Your task to perform on an android device: Show me popular games on the Play Store Image 0: 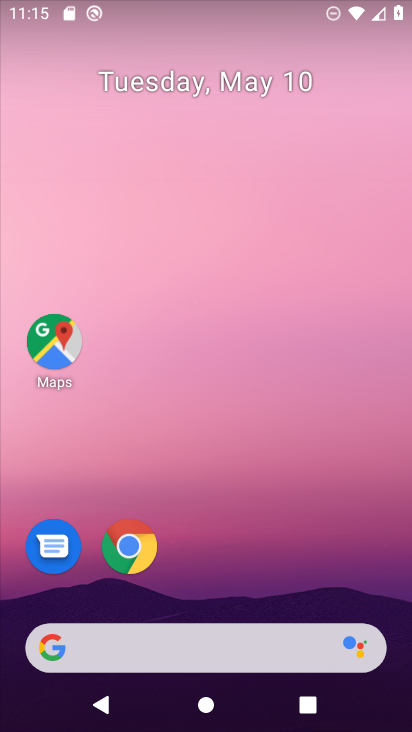
Step 0: drag from (319, 585) to (329, 129)
Your task to perform on an android device: Show me popular games on the Play Store Image 1: 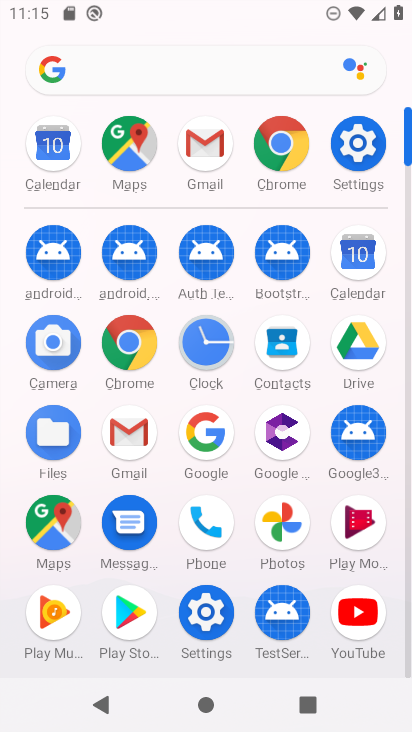
Step 1: click (137, 611)
Your task to perform on an android device: Show me popular games on the Play Store Image 2: 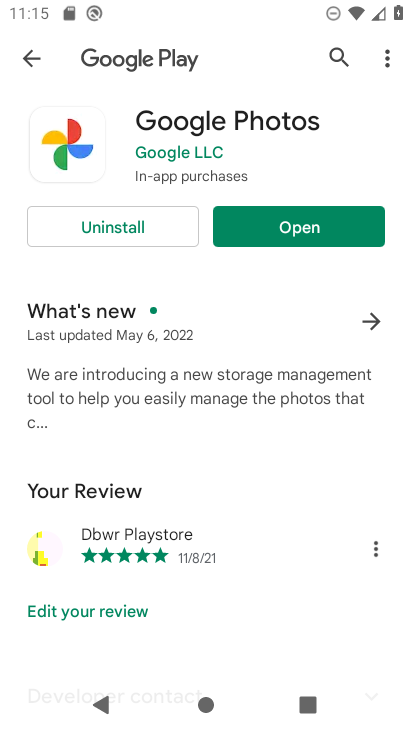
Step 2: click (33, 56)
Your task to perform on an android device: Show me popular games on the Play Store Image 3: 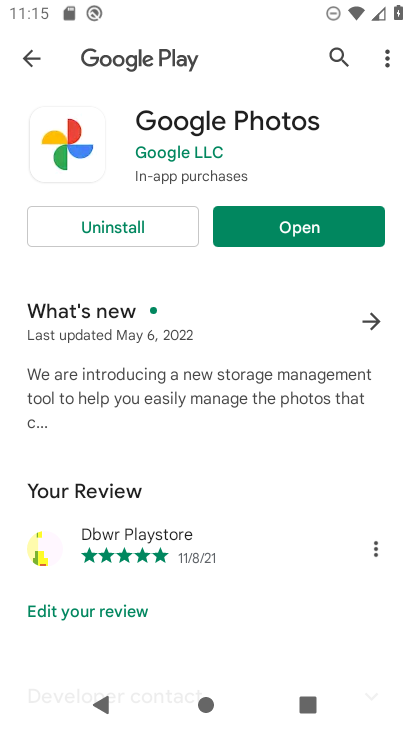
Step 3: click (39, 47)
Your task to perform on an android device: Show me popular games on the Play Store Image 4: 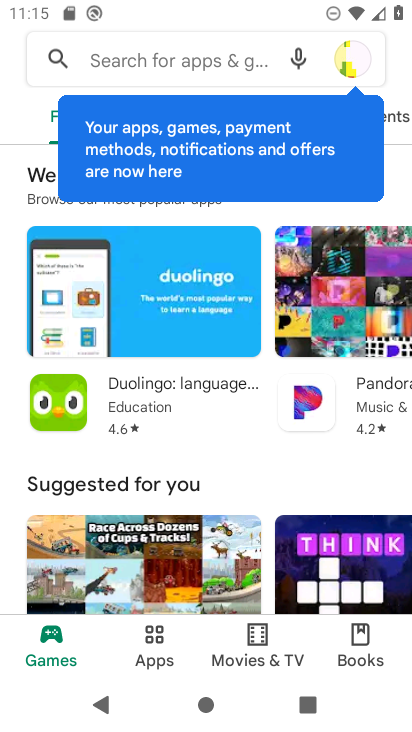
Step 4: drag from (287, 464) to (340, 146)
Your task to perform on an android device: Show me popular games on the Play Store Image 5: 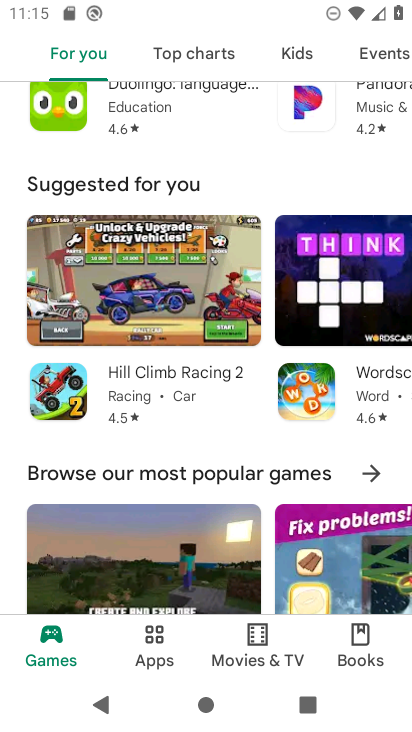
Step 5: drag from (294, 514) to (337, 177)
Your task to perform on an android device: Show me popular games on the Play Store Image 6: 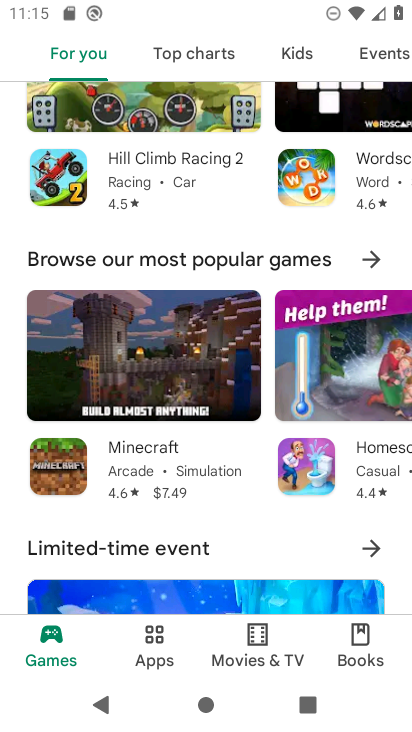
Step 6: drag from (265, 564) to (323, 208)
Your task to perform on an android device: Show me popular games on the Play Store Image 7: 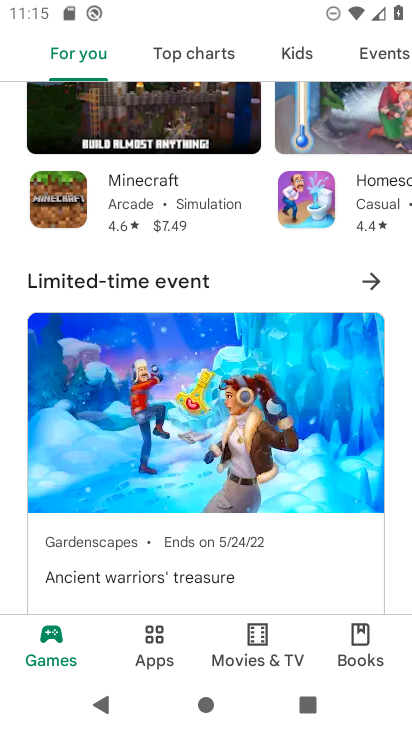
Step 7: drag from (290, 560) to (334, 233)
Your task to perform on an android device: Show me popular games on the Play Store Image 8: 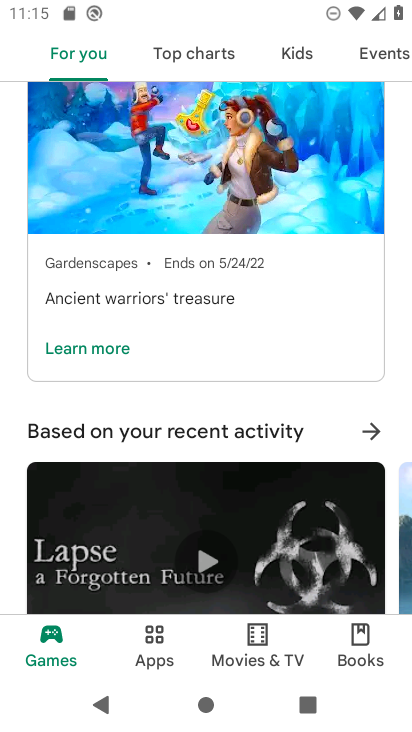
Step 8: drag from (278, 561) to (304, 292)
Your task to perform on an android device: Show me popular games on the Play Store Image 9: 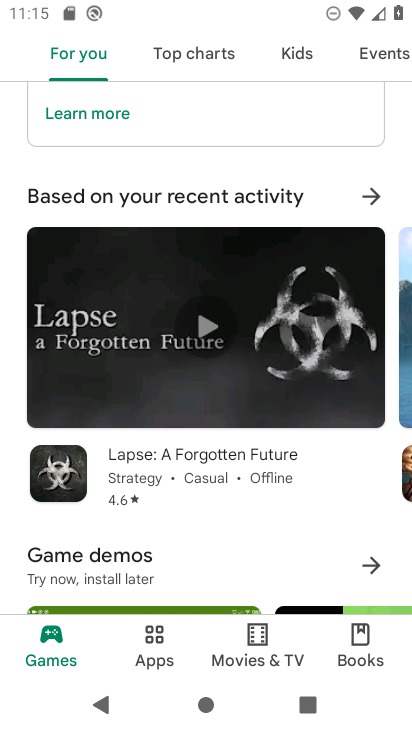
Step 9: drag from (207, 592) to (261, 276)
Your task to perform on an android device: Show me popular games on the Play Store Image 10: 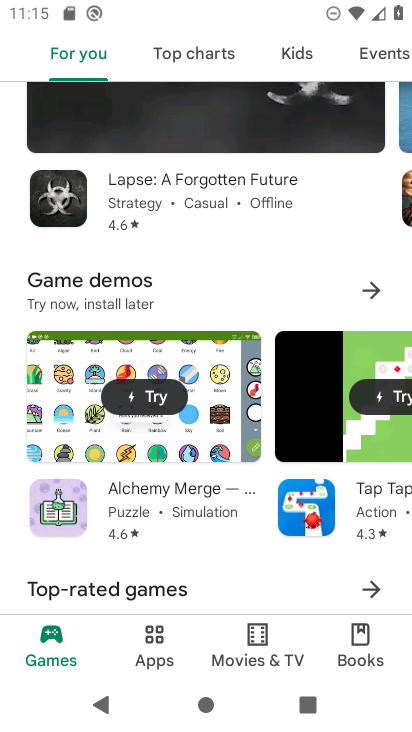
Step 10: click (263, 265)
Your task to perform on an android device: Show me popular games on the Play Store Image 11: 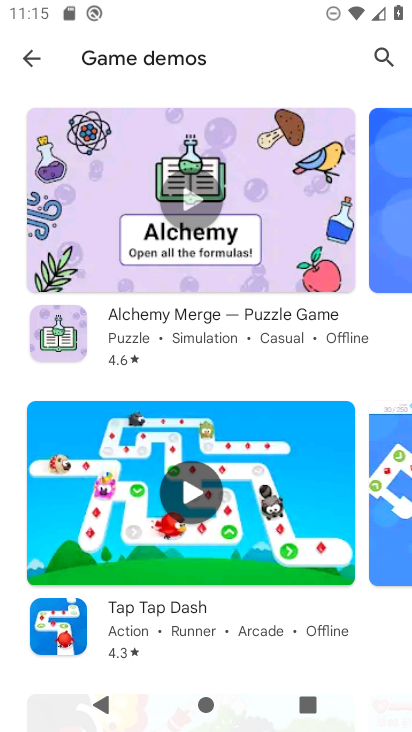
Step 11: click (45, 60)
Your task to perform on an android device: Show me popular games on the Play Store Image 12: 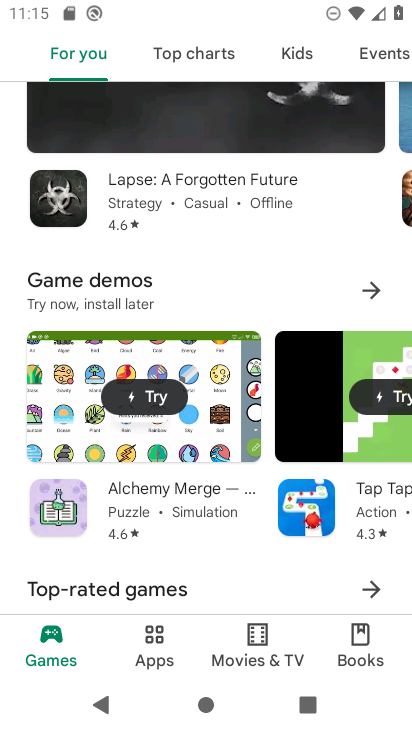
Step 12: task complete